Your task to perform on an android device: Search for seafood restaurants on Google Maps Image 0: 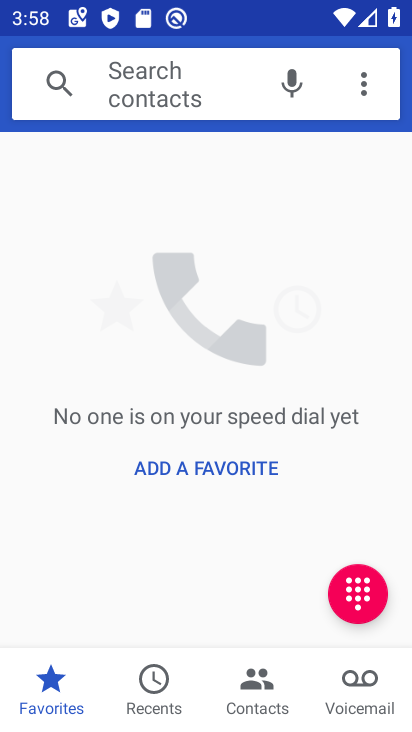
Step 0: press home button
Your task to perform on an android device: Search for seafood restaurants on Google Maps Image 1: 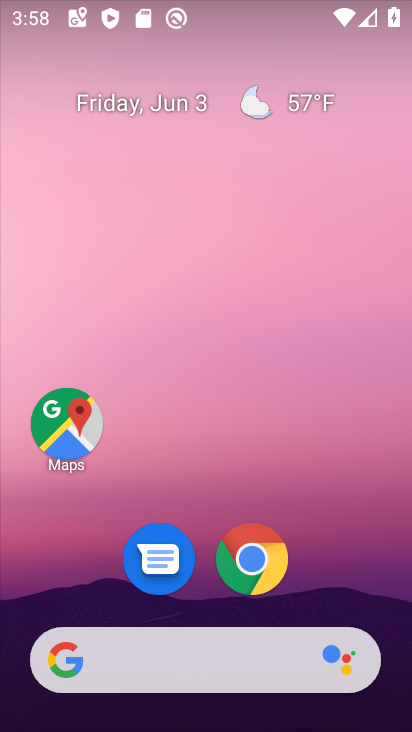
Step 1: click (58, 420)
Your task to perform on an android device: Search for seafood restaurants on Google Maps Image 2: 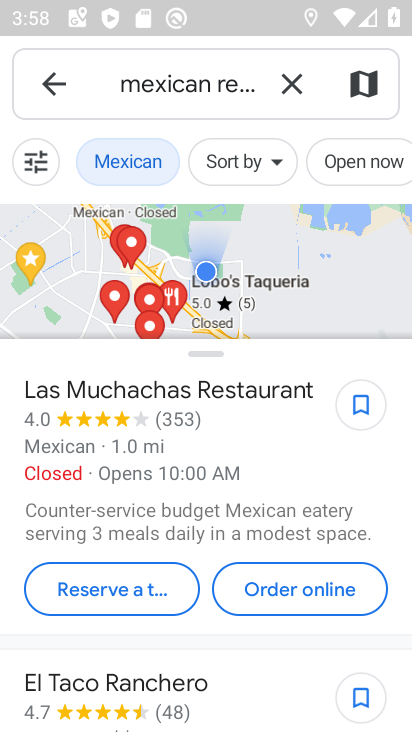
Step 2: click (288, 81)
Your task to perform on an android device: Search for seafood restaurants on Google Maps Image 3: 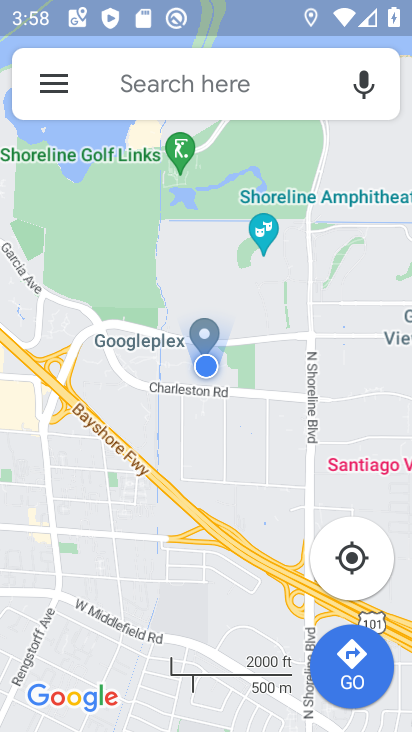
Step 3: click (288, 81)
Your task to perform on an android device: Search for seafood restaurants on Google Maps Image 4: 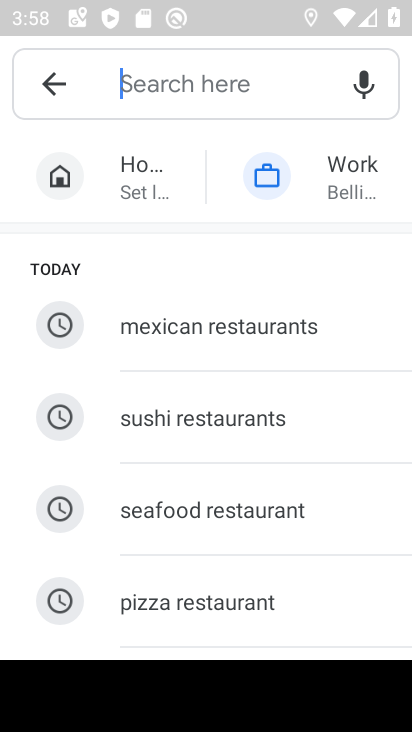
Step 4: type " seafood restaurants "
Your task to perform on an android device: Search for seafood restaurants on Google Maps Image 5: 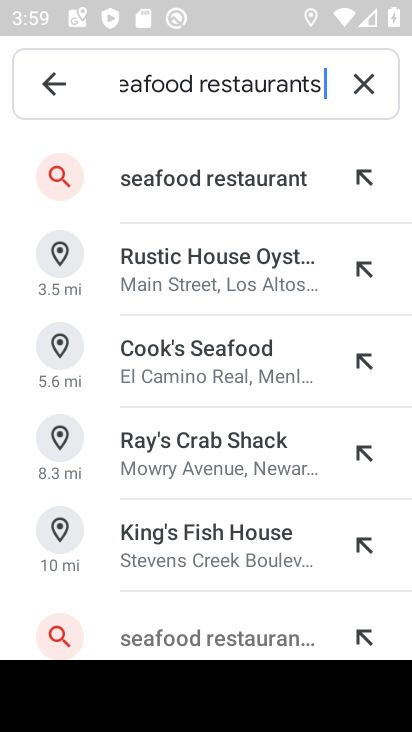
Step 5: click (214, 183)
Your task to perform on an android device: Search for seafood restaurants on Google Maps Image 6: 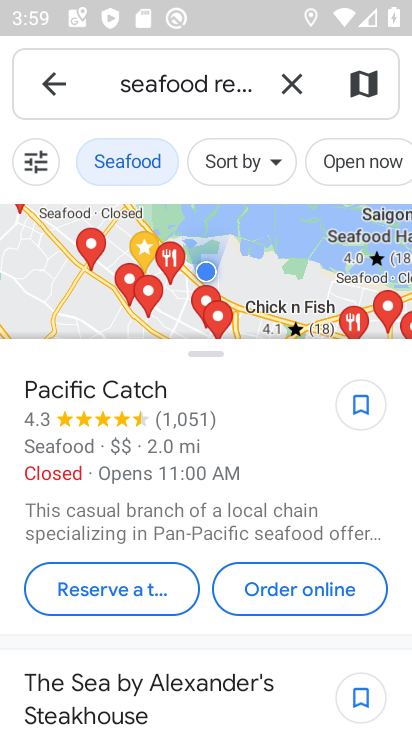
Step 6: task complete